Your task to perform on an android device: Open Google Chrome and open the bookmarks view Image 0: 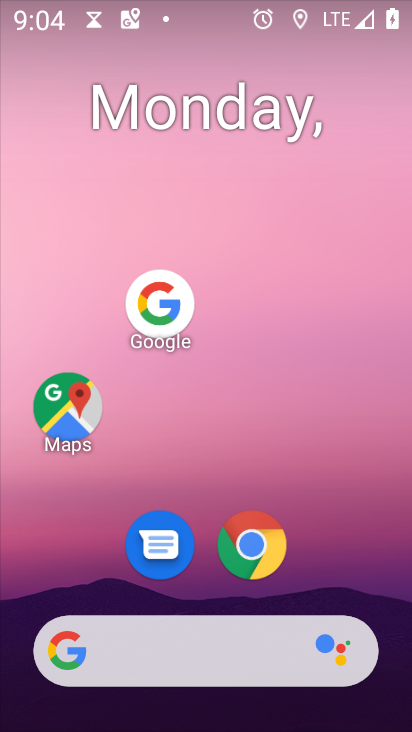
Step 0: press home button
Your task to perform on an android device: Open Google Chrome and open the bookmarks view Image 1: 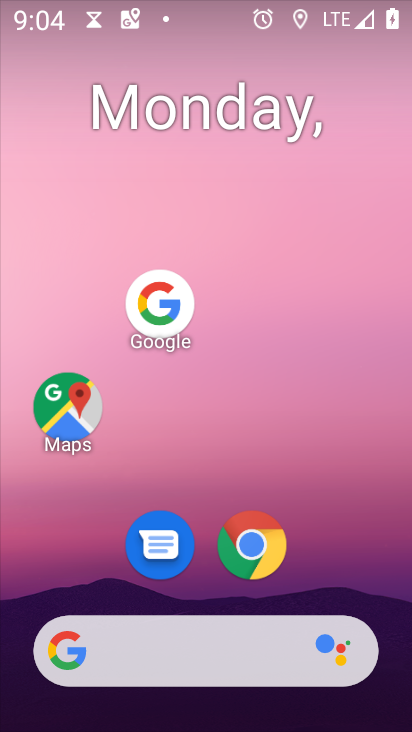
Step 1: click (264, 568)
Your task to perform on an android device: Open Google Chrome and open the bookmarks view Image 2: 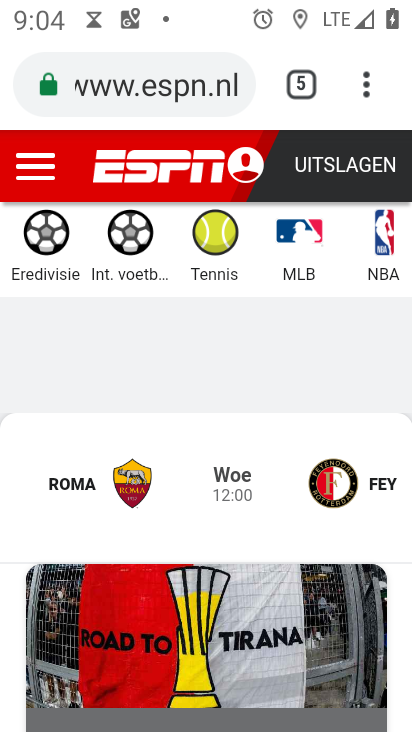
Step 2: task complete